Your task to perform on an android device: turn off location Image 0: 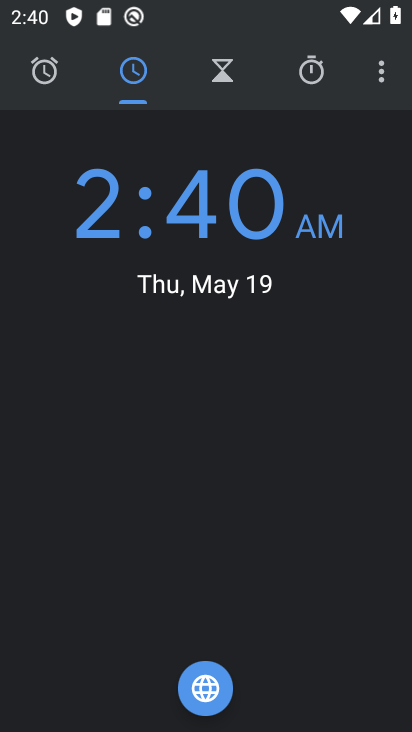
Step 0: press home button
Your task to perform on an android device: turn off location Image 1: 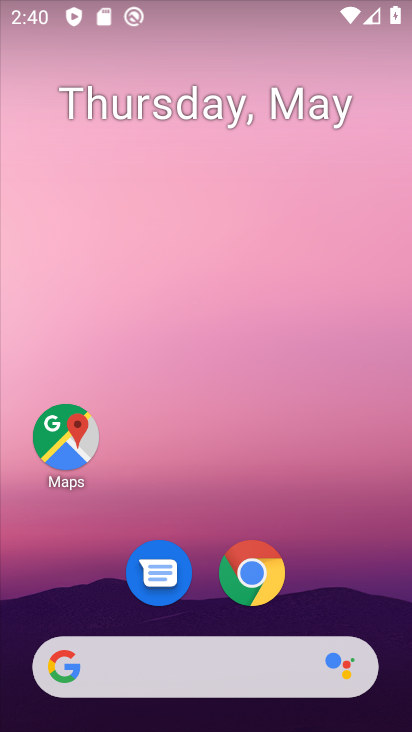
Step 1: drag from (204, 596) to (194, 302)
Your task to perform on an android device: turn off location Image 2: 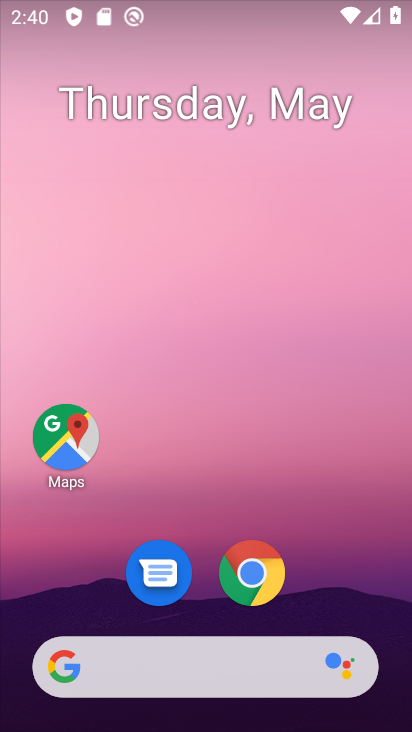
Step 2: drag from (217, 649) to (243, 208)
Your task to perform on an android device: turn off location Image 3: 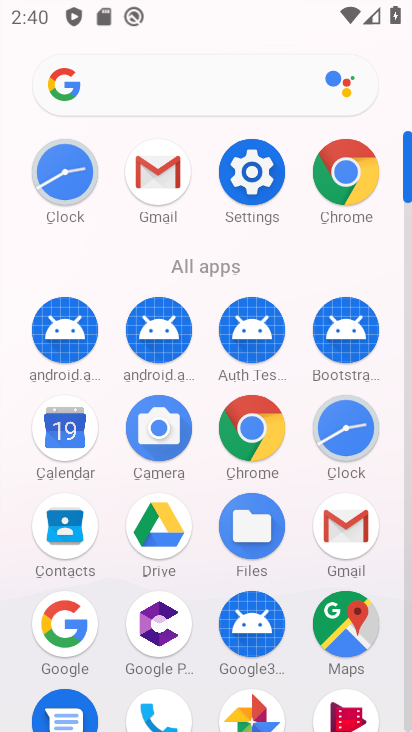
Step 3: click (244, 178)
Your task to perform on an android device: turn off location Image 4: 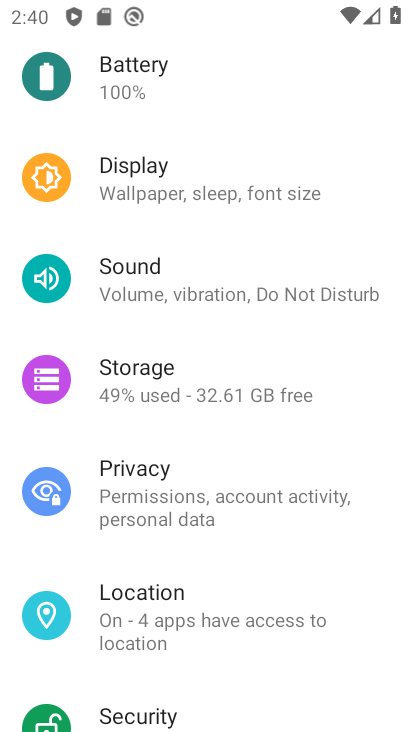
Step 4: click (148, 623)
Your task to perform on an android device: turn off location Image 5: 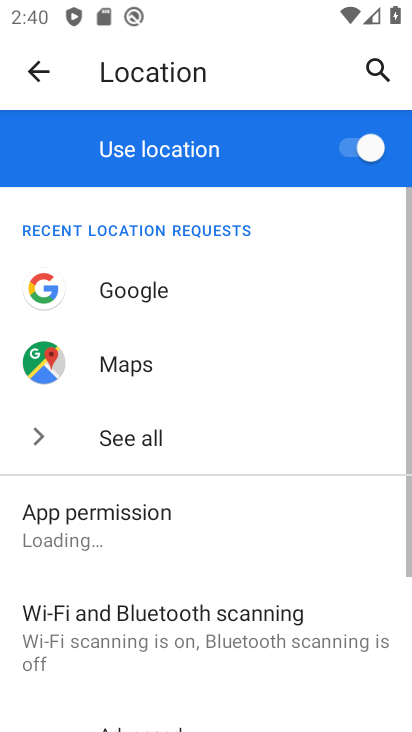
Step 5: click (345, 146)
Your task to perform on an android device: turn off location Image 6: 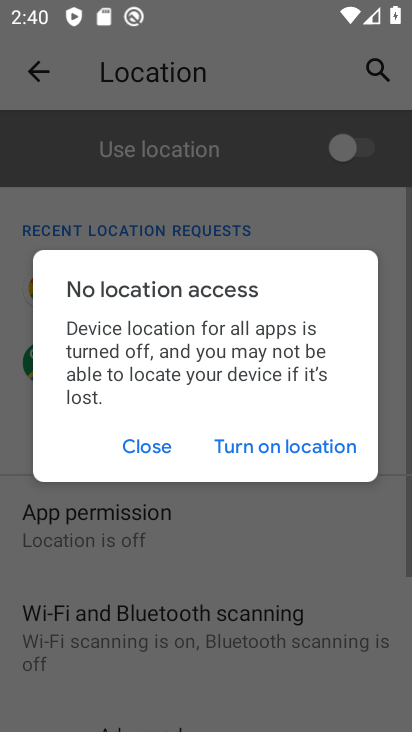
Step 6: task complete